Your task to perform on an android device: Open the phone app and click the voicemail tab. Image 0: 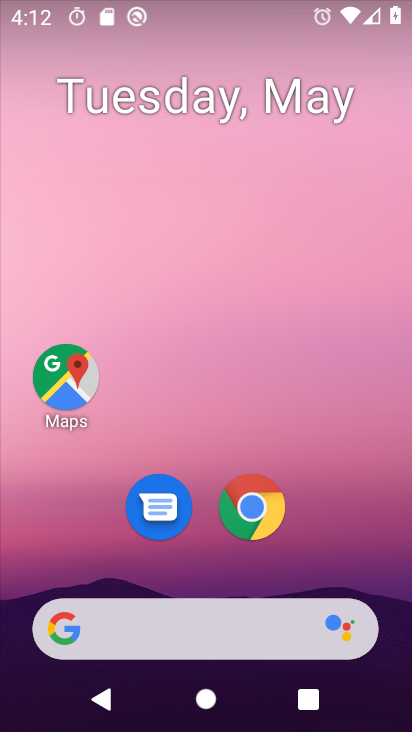
Step 0: press home button
Your task to perform on an android device: Open the phone app and click the voicemail tab. Image 1: 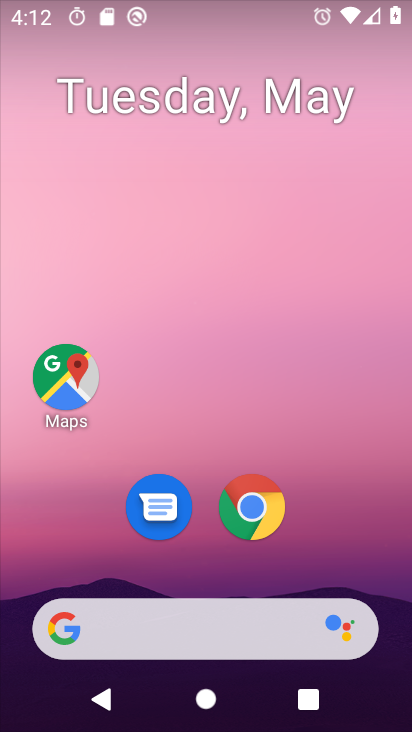
Step 1: drag from (233, 491) to (325, 210)
Your task to perform on an android device: Open the phone app and click the voicemail tab. Image 2: 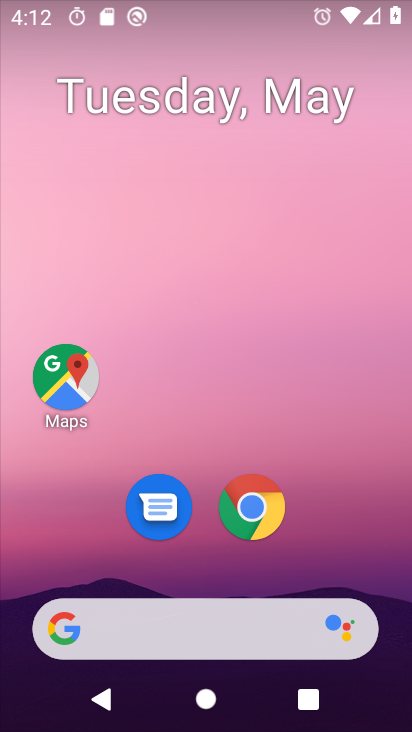
Step 2: drag from (210, 572) to (345, 60)
Your task to perform on an android device: Open the phone app and click the voicemail tab. Image 3: 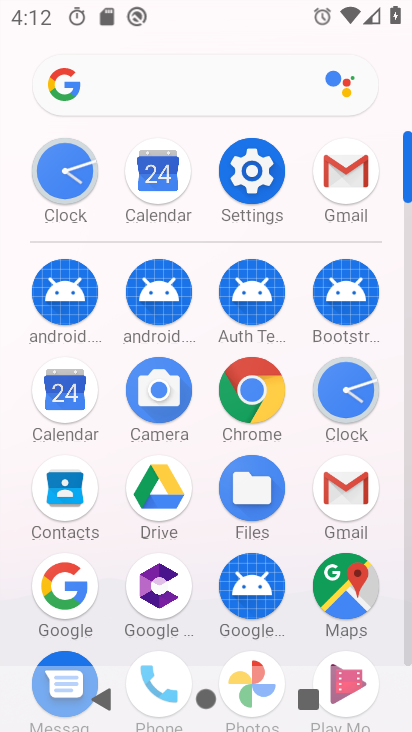
Step 3: drag from (276, 547) to (337, 336)
Your task to perform on an android device: Open the phone app and click the voicemail tab. Image 4: 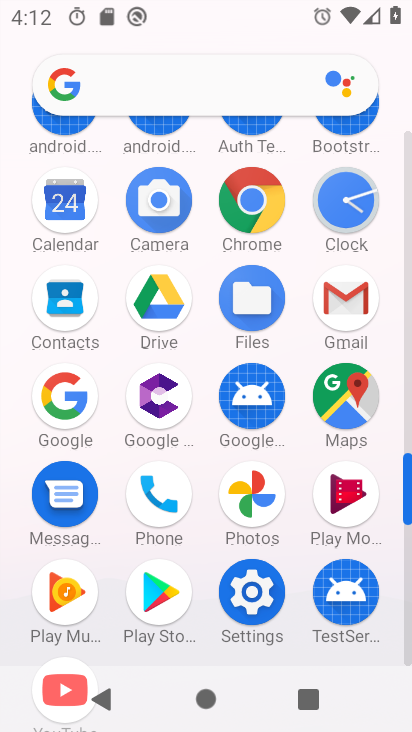
Step 4: click (155, 503)
Your task to perform on an android device: Open the phone app and click the voicemail tab. Image 5: 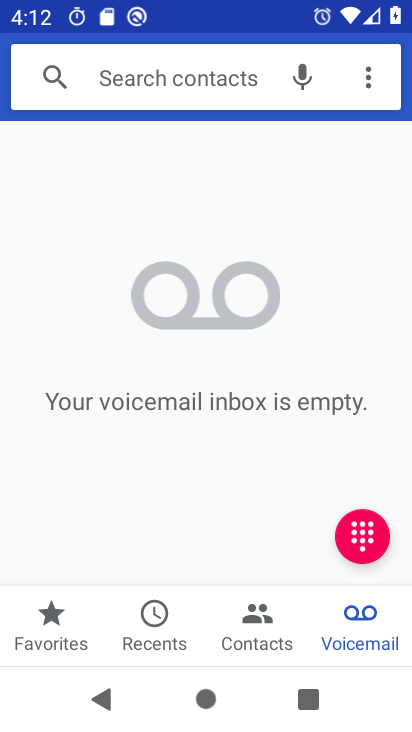
Step 5: task complete